Your task to perform on an android device: Turn off the flashlight Image 0: 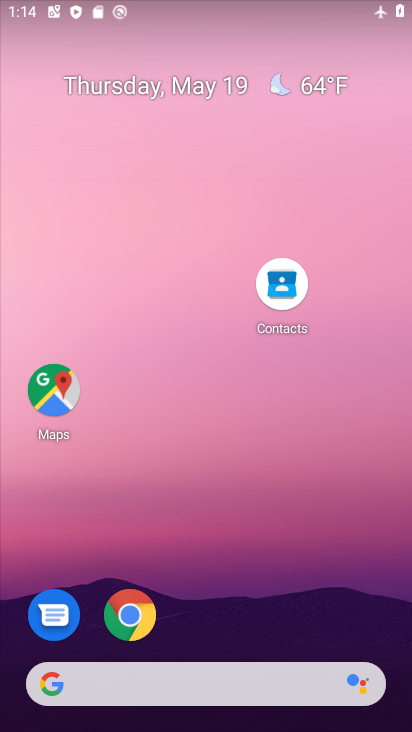
Step 0: drag from (296, 5) to (203, 527)
Your task to perform on an android device: Turn off the flashlight Image 1: 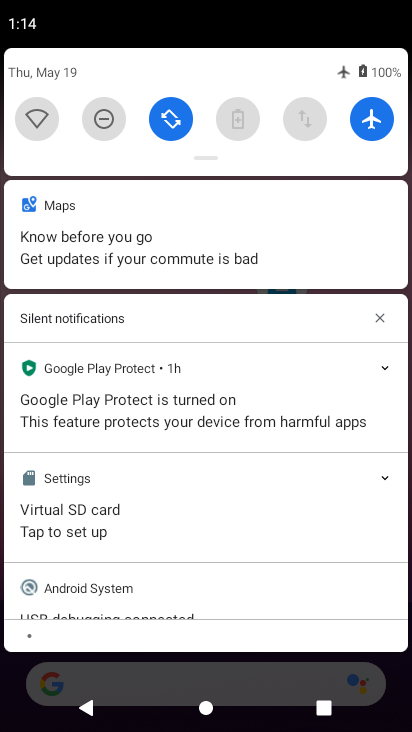
Step 1: task complete